Your task to perform on an android device: Open the web browser Image 0: 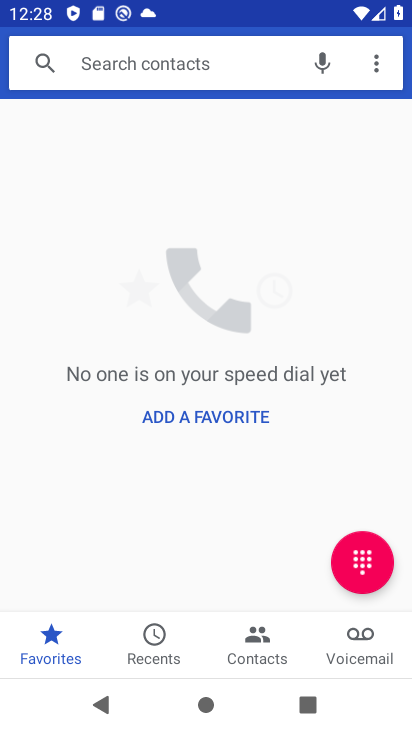
Step 0: press home button
Your task to perform on an android device: Open the web browser Image 1: 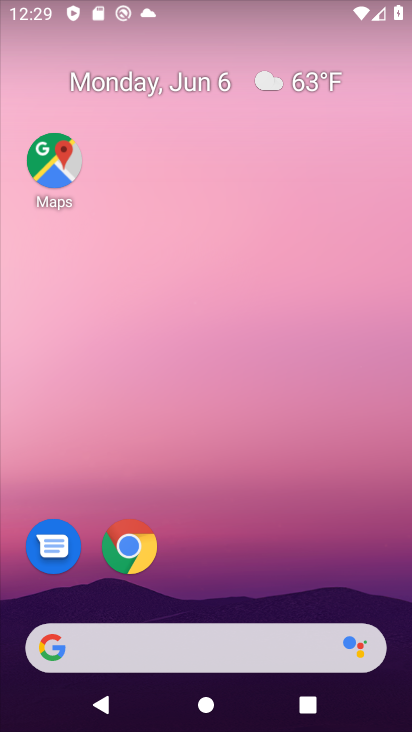
Step 1: click (225, 640)
Your task to perform on an android device: Open the web browser Image 2: 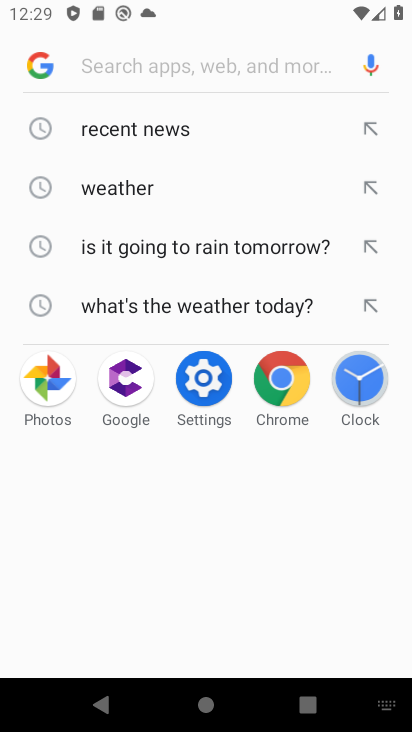
Step 2: task complete